Your task to perform on an android device: Show me productivity apps on the Play Store Image 0: 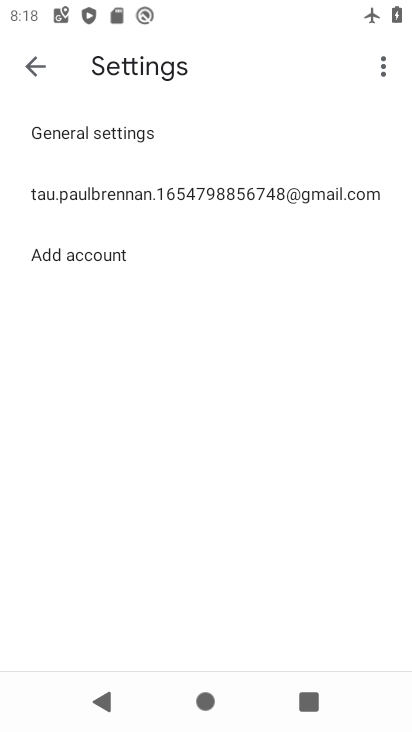
Step 0: press home button
Your task to perform on an android device: Show me productivity apps on the Play Store Image 1: 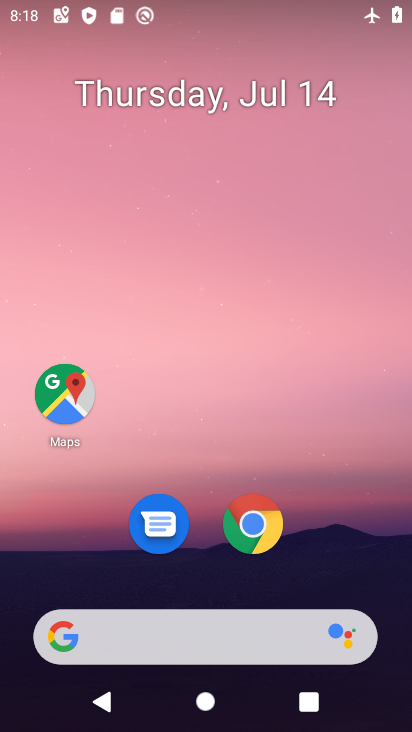
Step 1: drag from (321, 555) to (317, 1)
Your task to perform on an android device: Show me productivity apps on the Play Store Image 2: 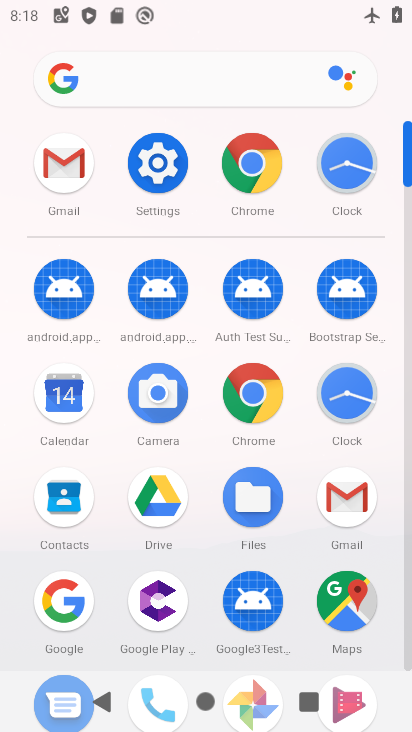
Step 2: drag from (198, 538) to (217, 197)
Your task to perform on an android device: Show me productivity apps on the Play Store Image 3: 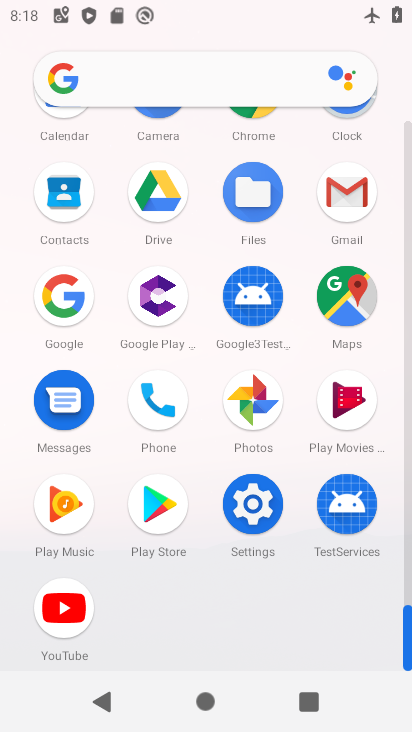
Step 3: click (156, 502)
Your task to perform on an android device: Show me productivity apps on the Play Store Image 4: 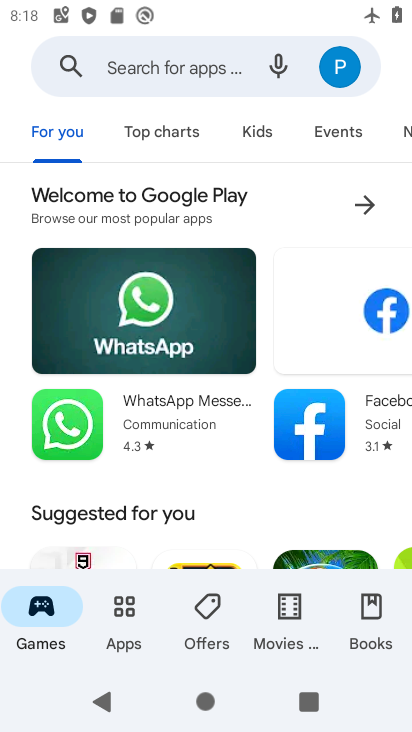
Step 4: click (126, 623)
Your task to perform on an android device: Show me productivity apps on the Play Store Image 5: 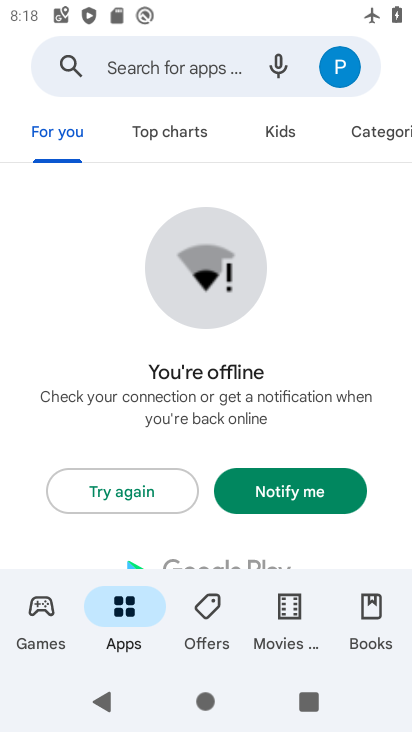
Step 5: click (384, 128)
Your task to perform on an android device: Show me productivity apps on the Play Store Image 6: 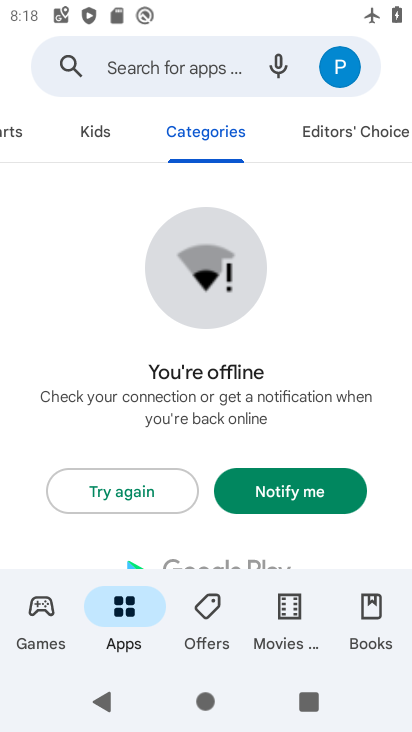
Step 6: task complete